Your task to perform on an android device: Search for Italian restaurants on Maps Image 0: 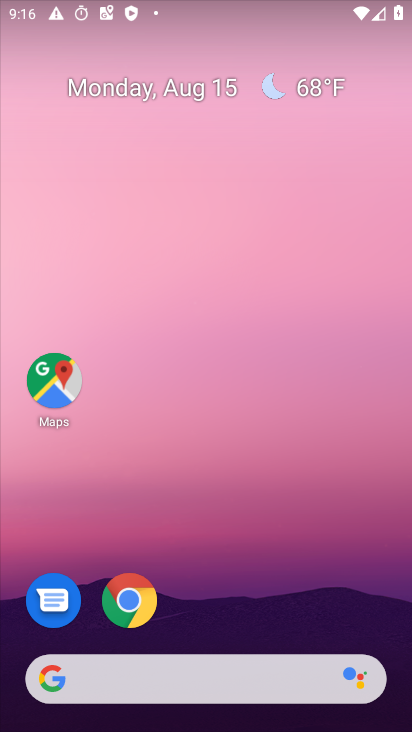
Step 0: drag from (208, 637) to (208, 42)
Your task to perform on an android device: Search for Italian restaurants on Maps Image 1: 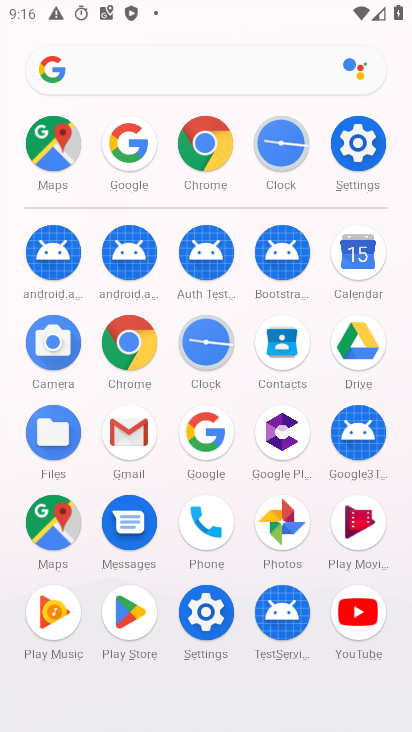
Step 1: click (46, 527)
Your task to perform on an android device: Search for Italian restaurants on Maps Image 2: 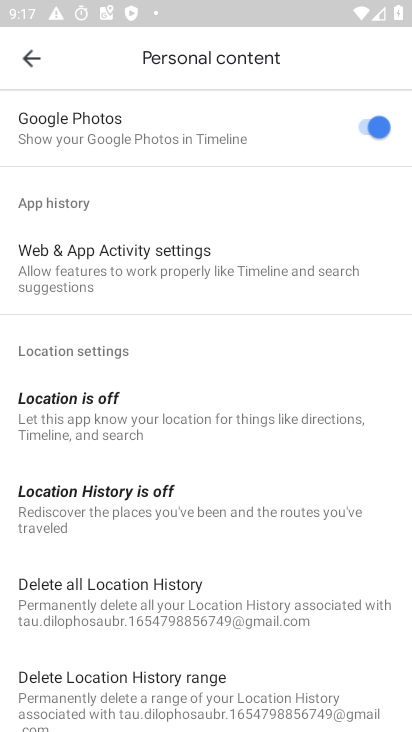
Step 2: click (35, 50)
Your task to perform on an android device: Search for Italian restaurants on Maps Image 3: 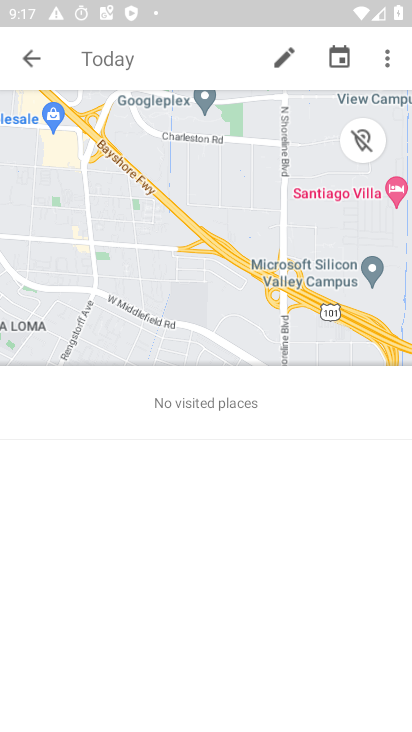
Step 3: click (29, 58)
Your task to perform on an android device: Search for Italian restaurants on Maps Image 4: 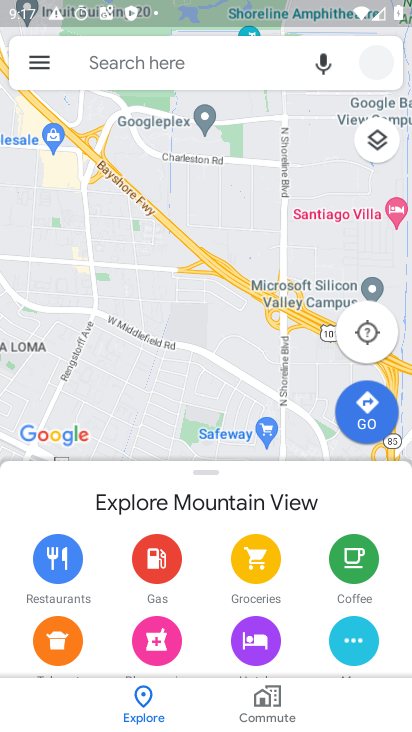
Step 4: click (136, 63)
Your task to perform on an android device: Search for Italian restaurants on Maps Image 5: 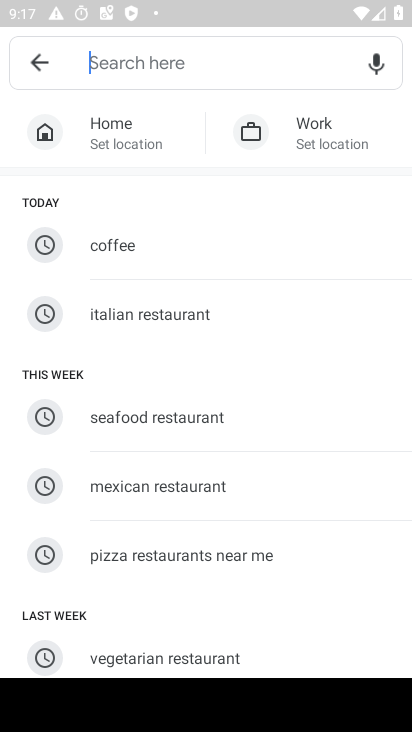
Step 5: type "Italian restaurants"
Your task to perform on an android device: Search for Italian restaurants on Maps Image 6: 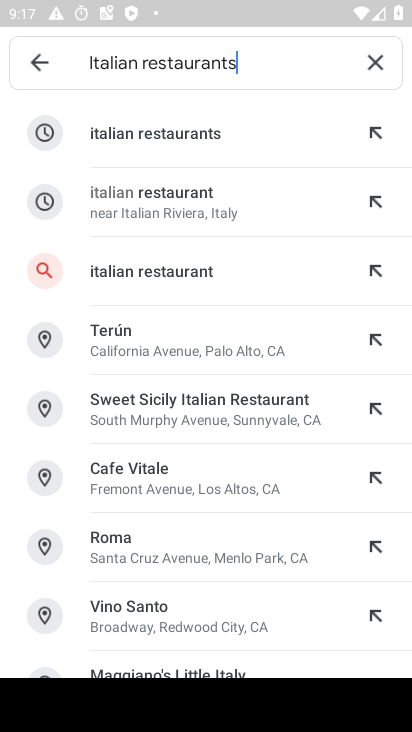
Step 6: click (174, 127)
Your task to perform on an android device: Search for Italian restaurants on Maps Image 7: 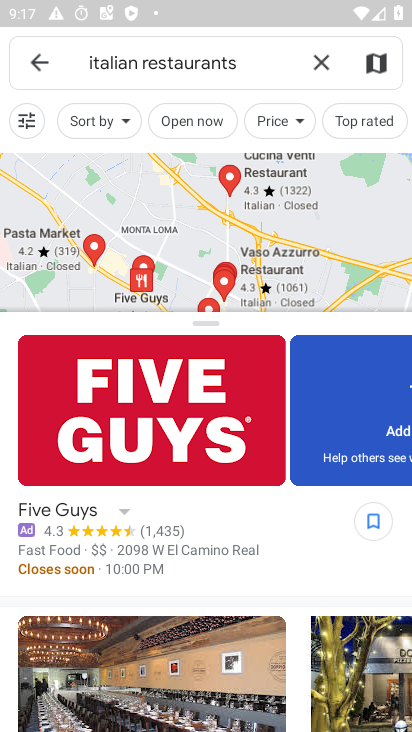
Step 7: task complete